Your task to perform on an android device: Show me recent news Image 0: 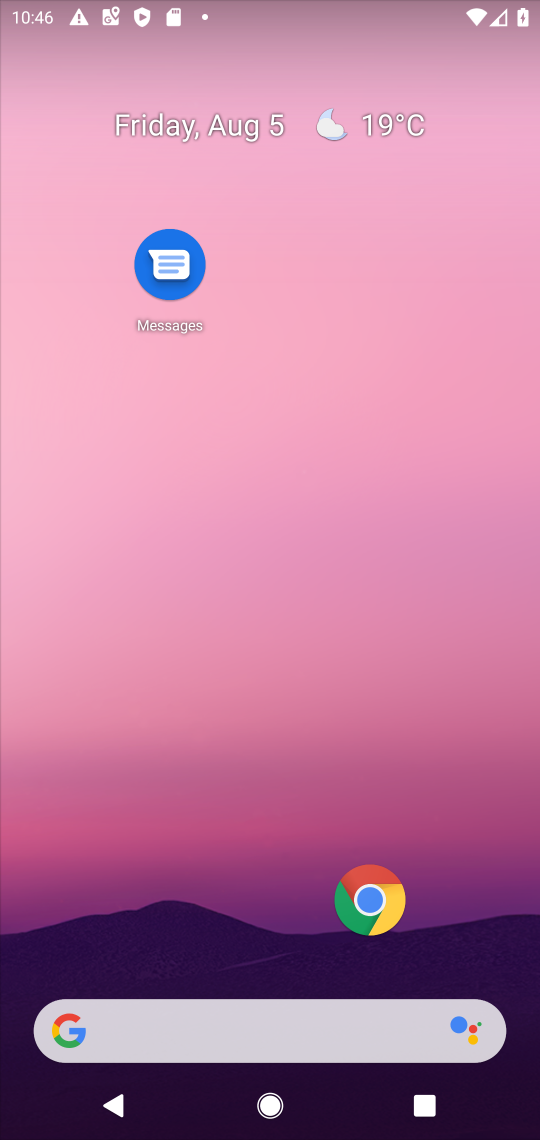
Step 0: press home button
Your task to perform on an android device: Show me recent news Image 1: 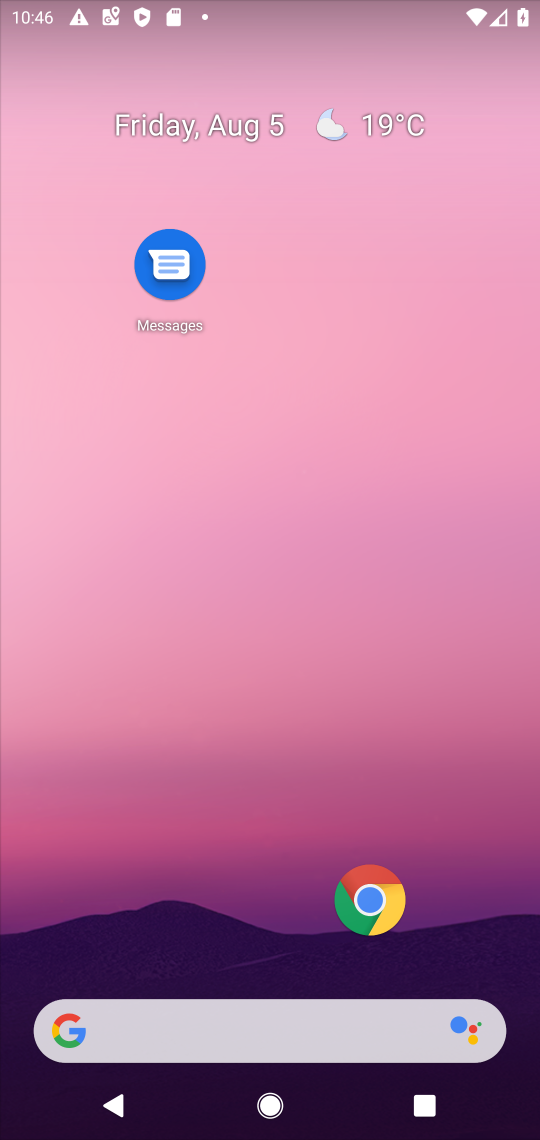
Step 1: click (281, 405)
Your task to perform on an android device: Show me recent news Image 2: 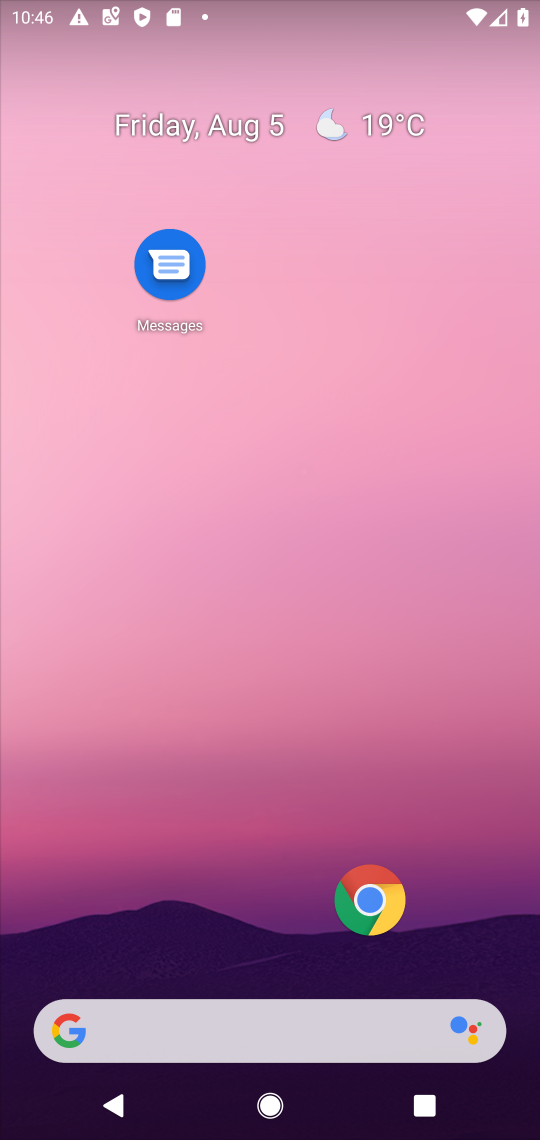
Step 2: drag from (287, 872) to (259, 392)
Your task to perform on an android device: Show me recent news Image 3: 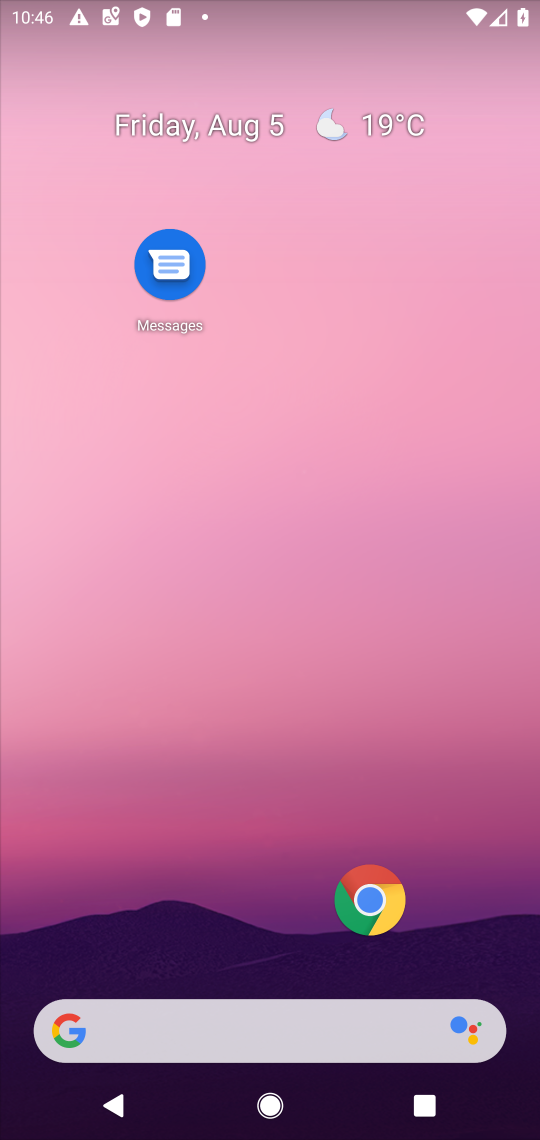
Step 3: click (354, 897)
Your task to perform on an android device: Show me recent news Image 4: 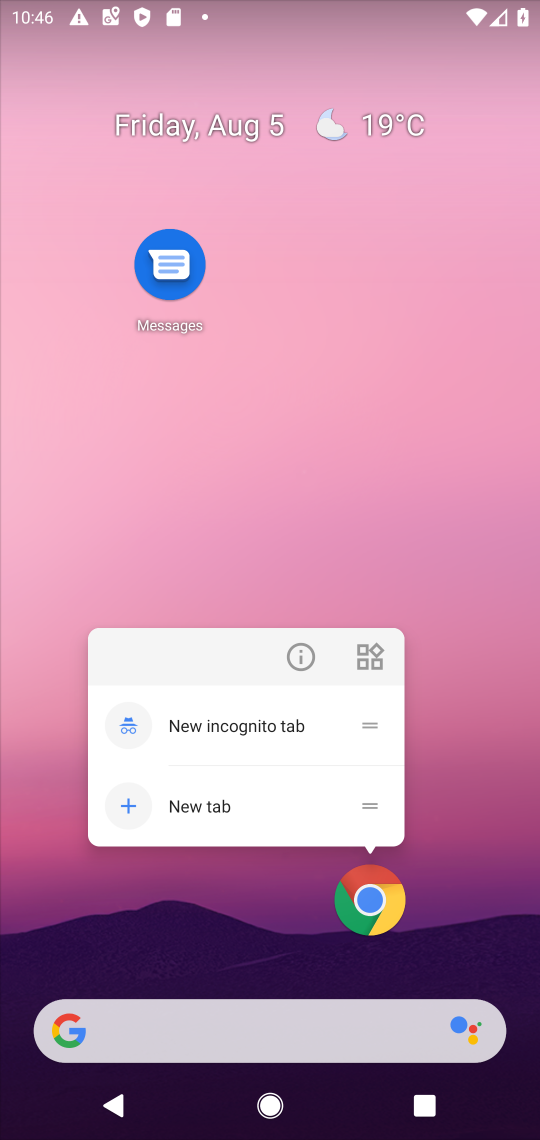
Step 4: click (354, 897)
Your task to perform on an android device: Show me recent news Image 5: 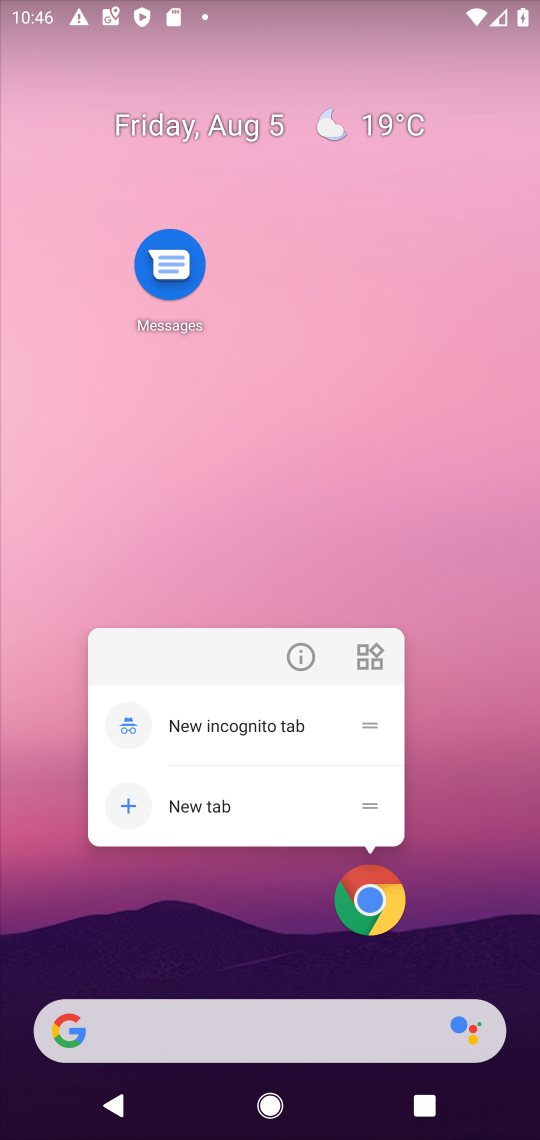
Step 5: click (354, 897)
Your task to perform on an android device: Show me recent news Image 6: 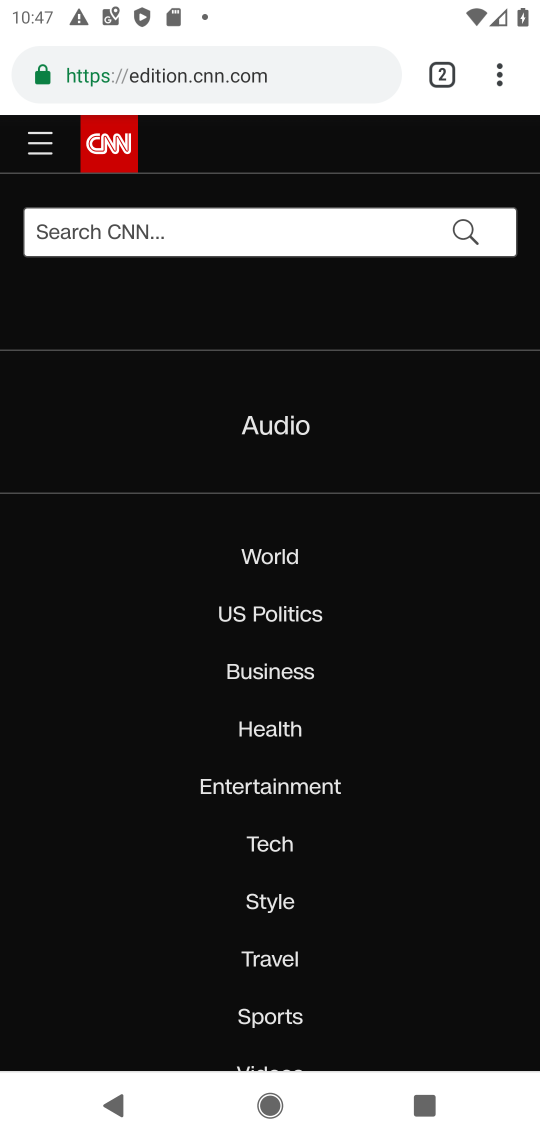
Step 6: click (158, 83)
Your task to perform on an android device: Show me recent news Image 7: 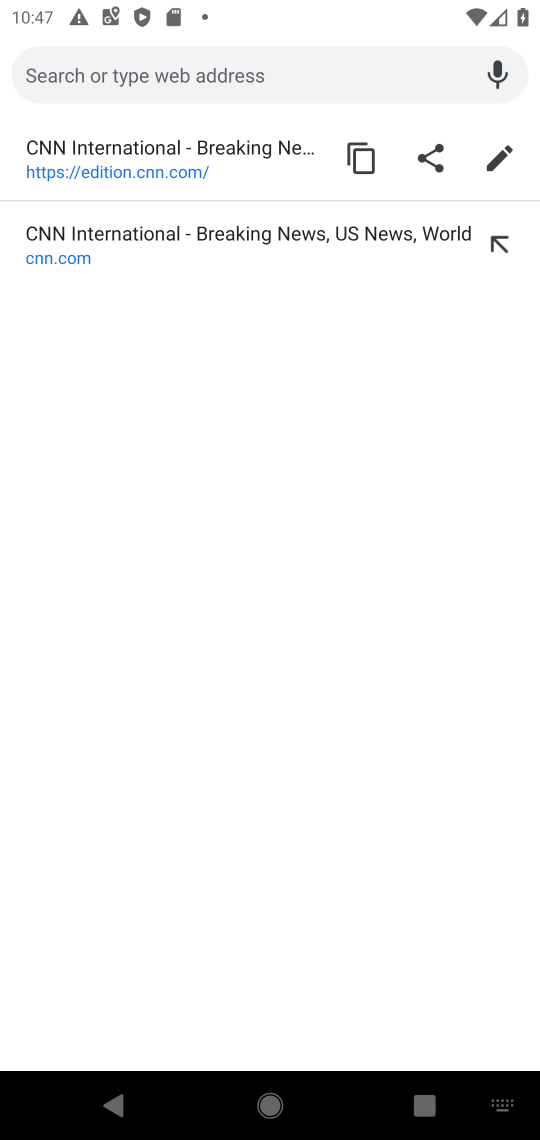
Step 7: type "Show me recent news"
Your task to perform on an android device: Show me recent news Image 8: 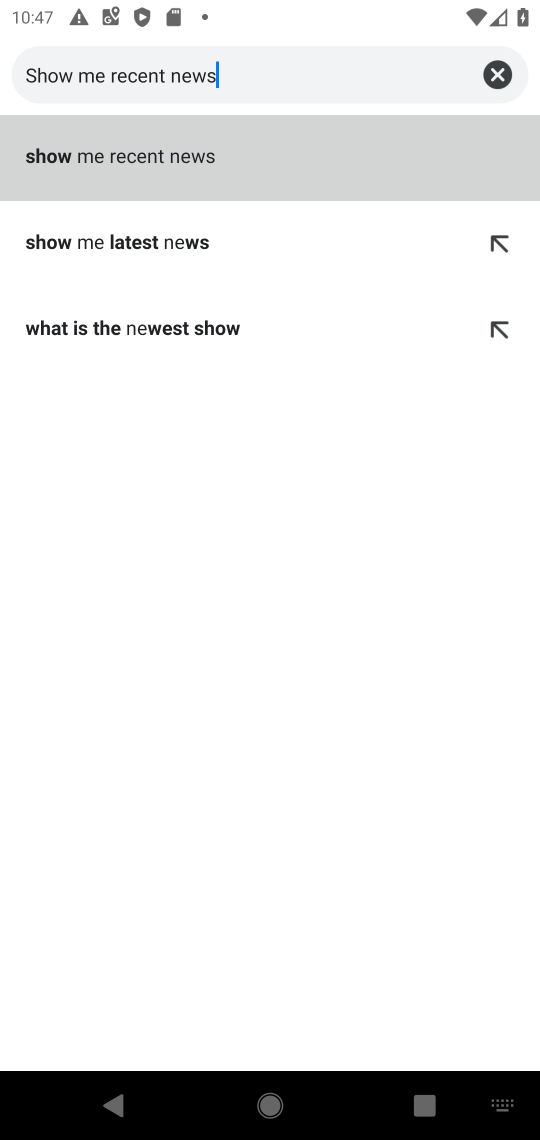
Step 8: type ""
Your task to perform on an android device: Show me recent news Image 9: 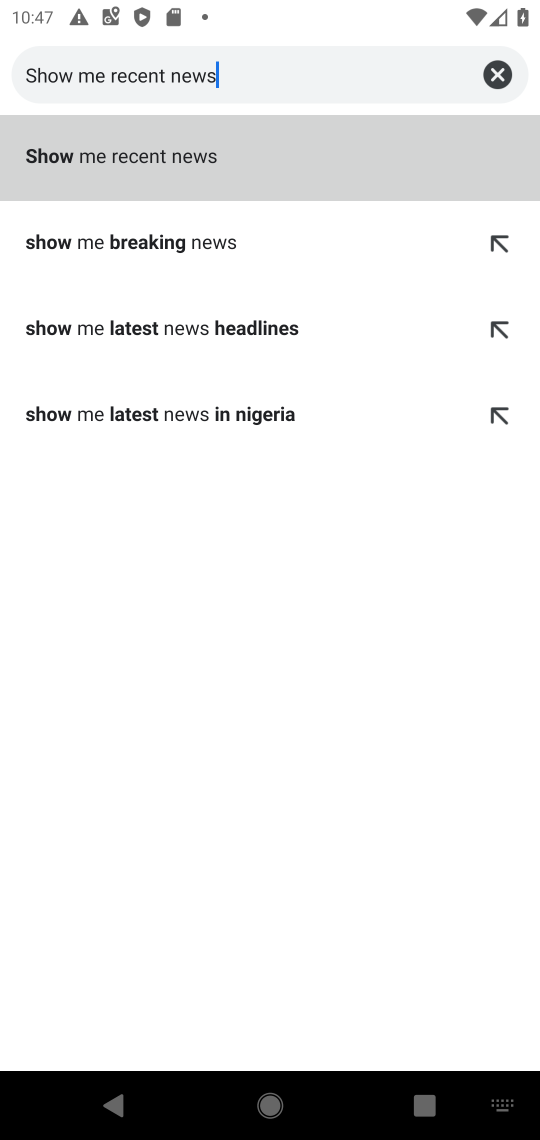
Step 9: click (117, 161)
Your task to perform on an android device: Show me recent news Image 10: 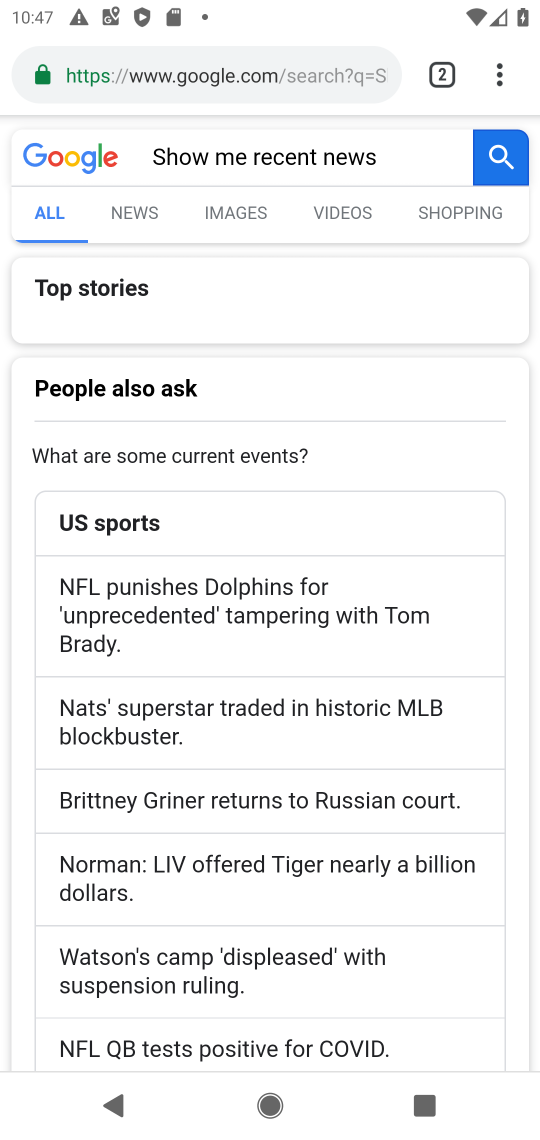
Step 10: task complete